Your task to perform on an android device: Open sound settings Image 0: 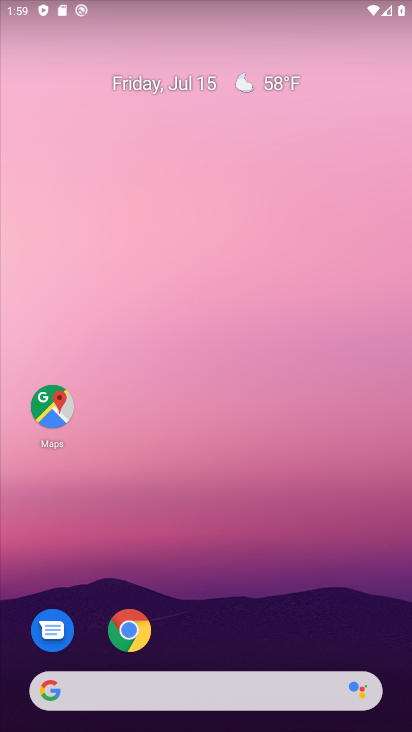
Step 0: drag from (352, 620) to (363, 128)
Your task to perform on an android device: Open sound settings Image 1: 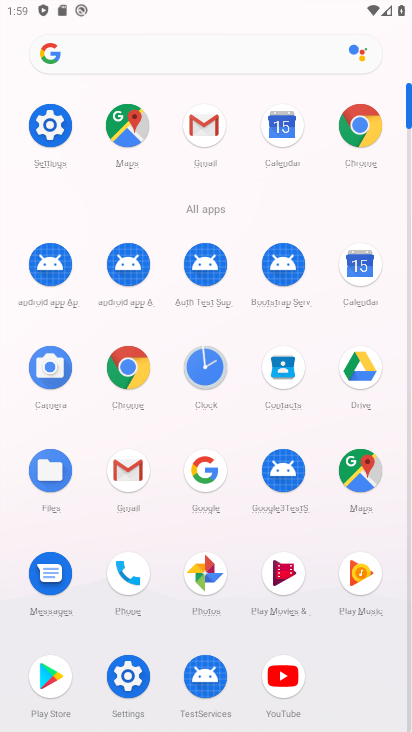
Step 1: click (56, 128)
Your task to perform on an android device: Open sound settings Image 2: 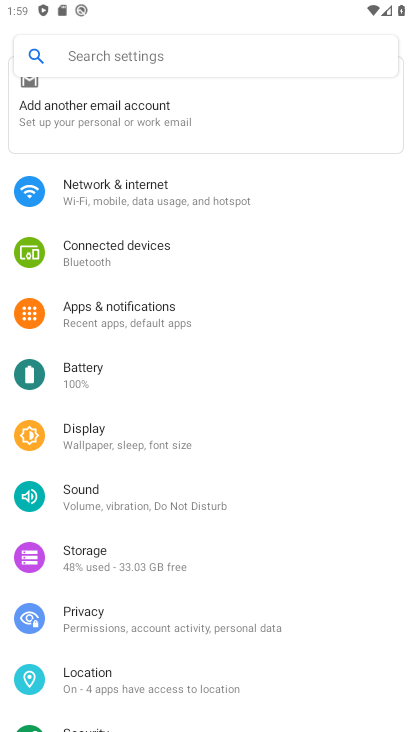
Step 2: drag from (341, 292) to (340, 386)
Your task to perform on an android device: Open sound settings Image 3: 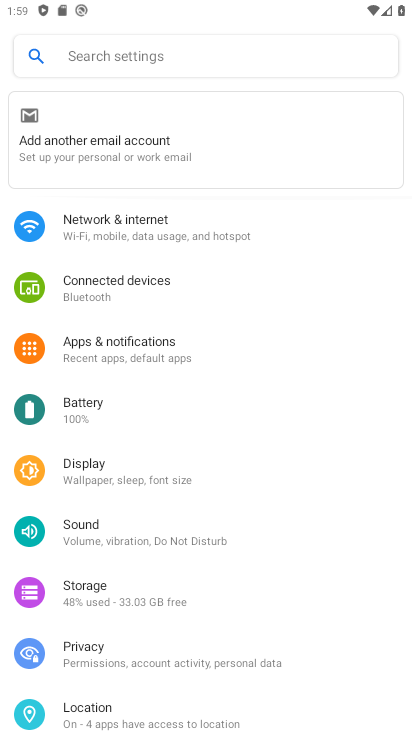
Step 3: drag from (344, 406) to (347, 348)
Your task to perform on an android device: Open sound settings Image 4: 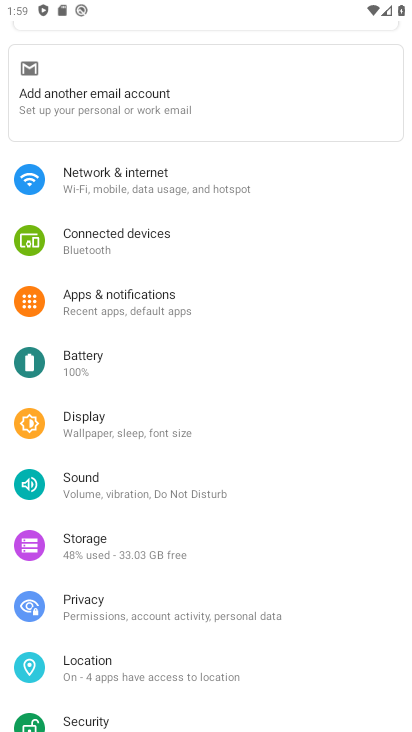
Step 4: drag from (341, 404) to (341, 349)
Your task to perform on an android device: Open sound settings Image 5: 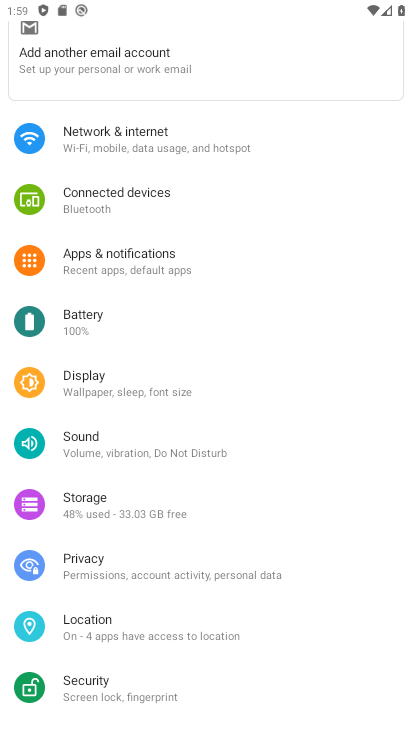
Step 5: drag from (338, 397) to (340, 347)
Your task to perform on an android device: Open sound settings Image 6: 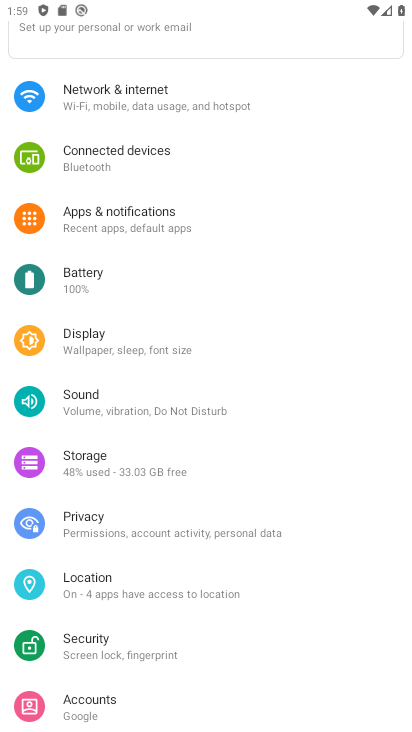
Step 6: drag from (327, 396) to (328, 332)
Your task to perform on an android device: Open sound settings Image 7: 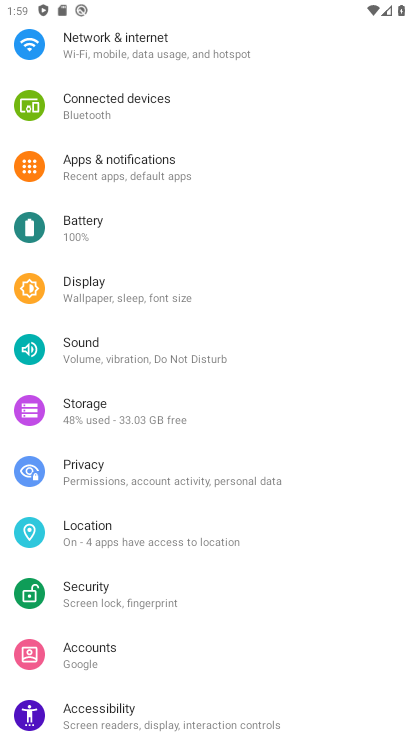
Step 7: drag from (312, 406) to (315, 340)
Your task to perform on an android device: Open sound settings Image 8: 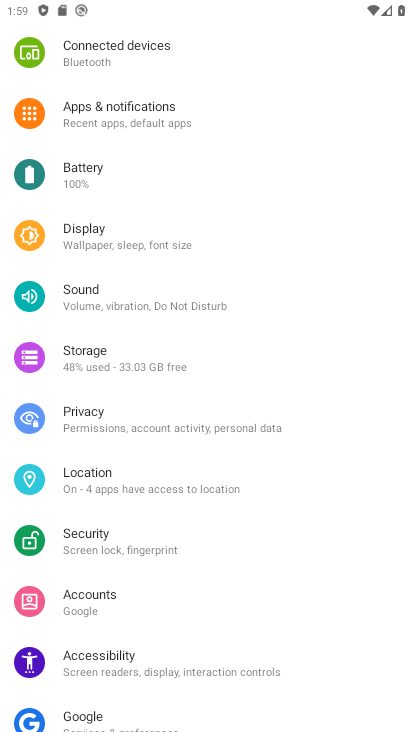
Step 8: click (273, 317)
Your task to perform on an android device: Open sound settings Image 9: 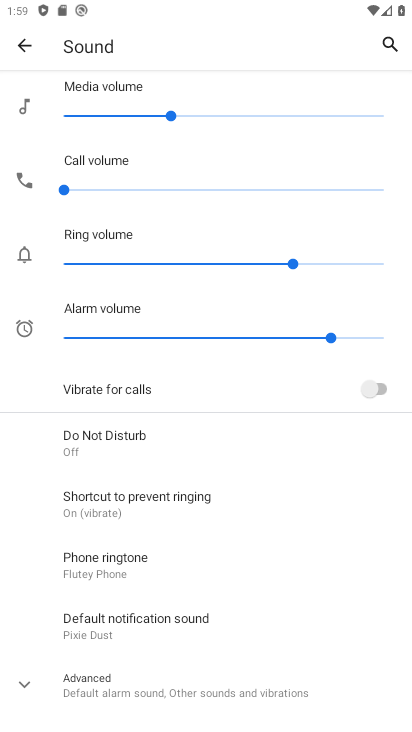
Step 9: drag from (292, 436) to (300, 365)
Your task to perform on an android device: Open sound settings Image 10: 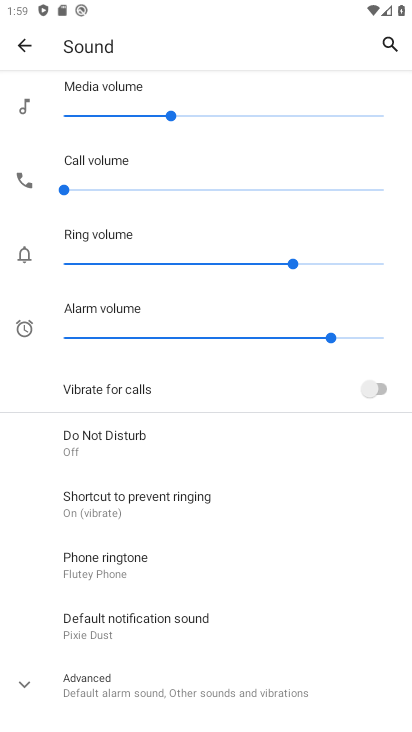
Step 10: click (226, 690)
Your task to perform on an android device: Open sound settings Image 11: 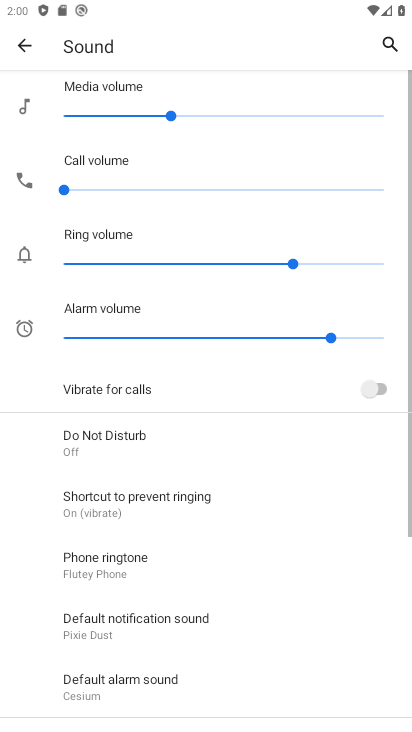
Step 11: task complete